Your task to perform on an android device: Open notification settings Image 0: 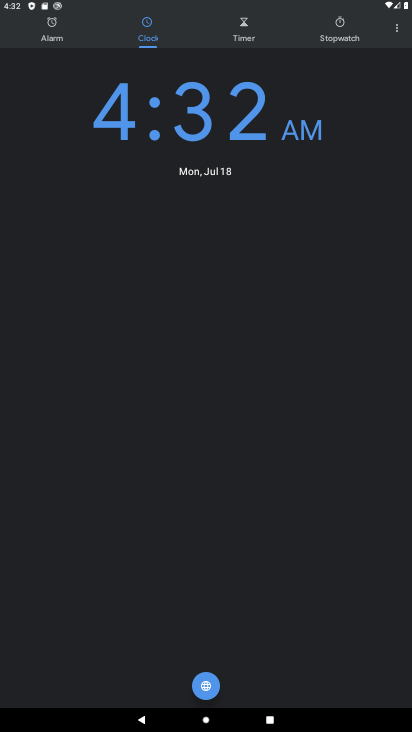
Step 0: press home button
Your task to perform on an android device: Open notification settings Image 1: 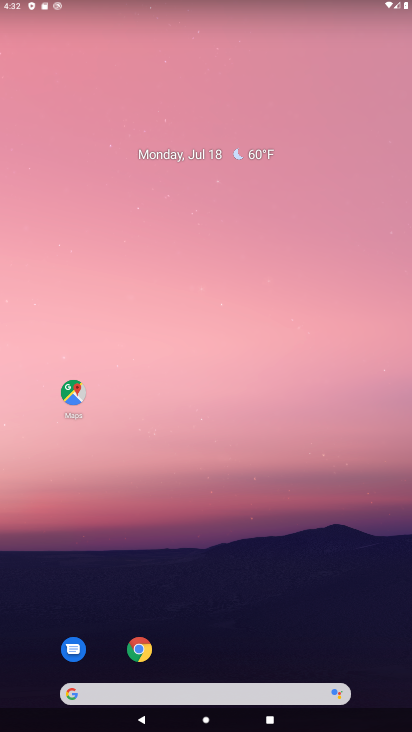
Step 1: drag from (215, 602) to (192, 11)
Your task to perform on an android device: Open notification settings Image 2: 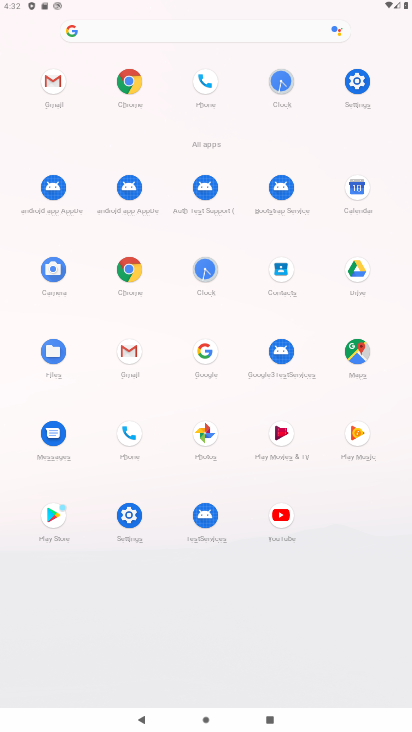
Step 2: click (126, 530)
Your task to perform on an android device: Open notification settings Image 3: 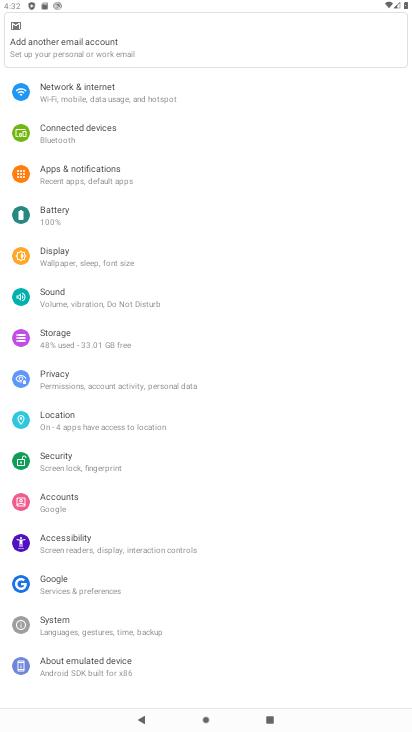
Step 3: click (107, 185)
Your task to perform on an android device: Open notification settings Image 4: 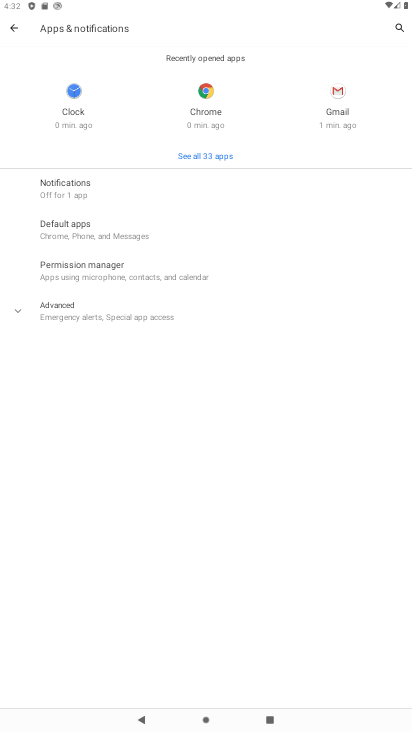
Step 4: click (79, 188)
Your task to perform on an android device: Open notification settings Image 5: 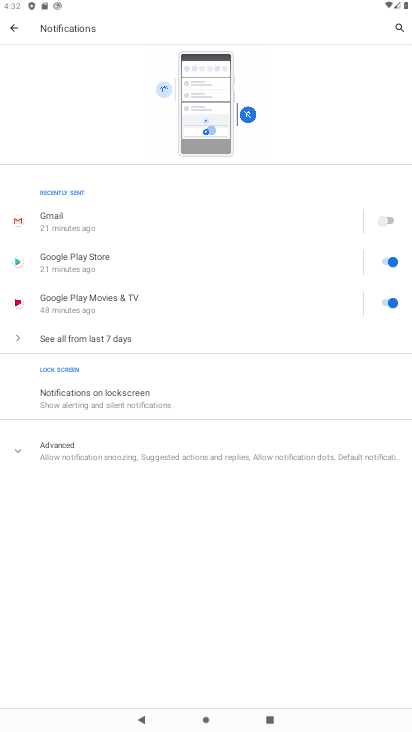
Step 5: task complete